Your task to perform on an android device: turn off smart reply in the gmail app Image 0: 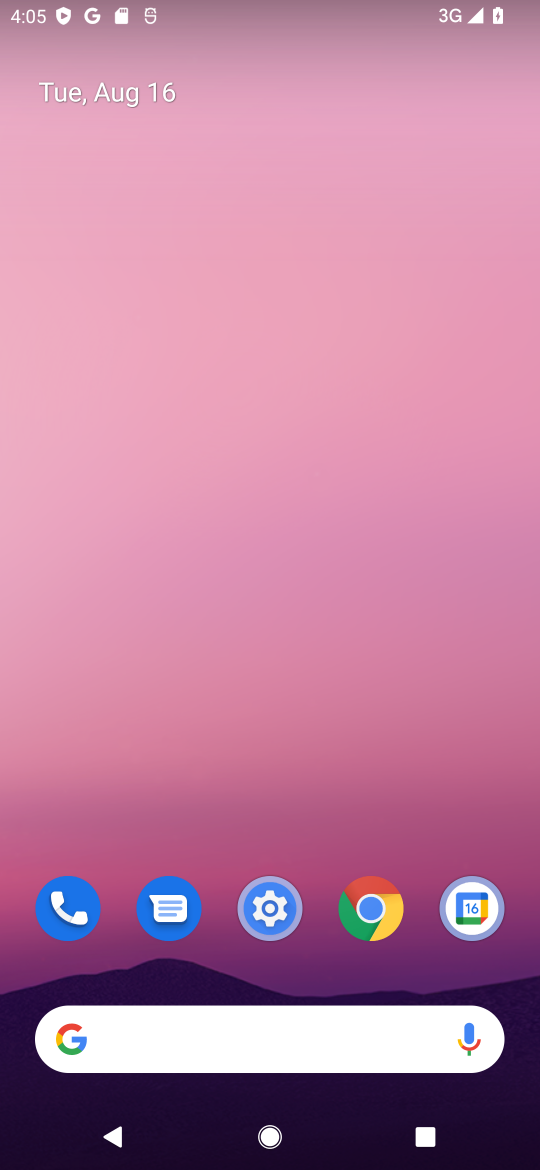
Step 0: drag from (322, 905) to (410, 168)
Your task to perform on an android device: turn off smart reply in the gmail app Image 1: 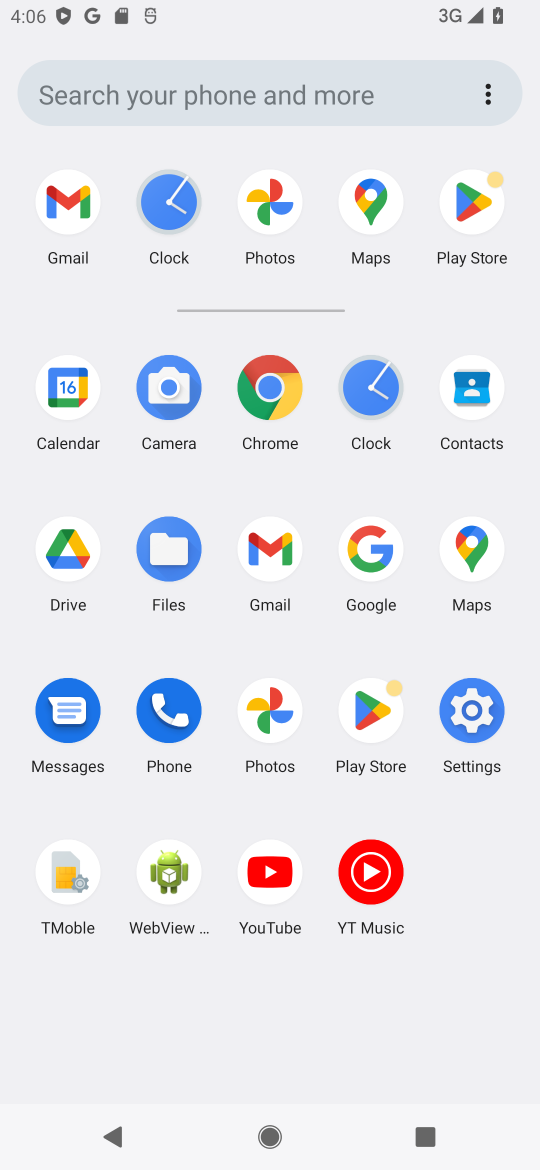
Step 1: click (68, 209)
Your task to perform on an android device: turn off smart reply in the gmail app Image 2: 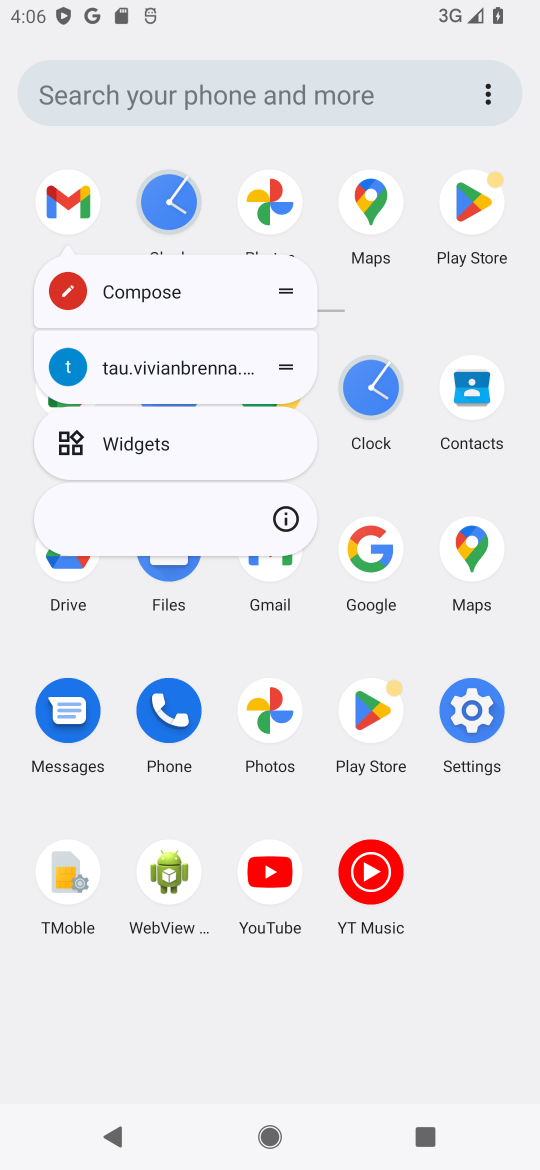
Step 2: click (63, 199)
Your task to perform on an android device: turn off smart reply in the gmail app Image 3: 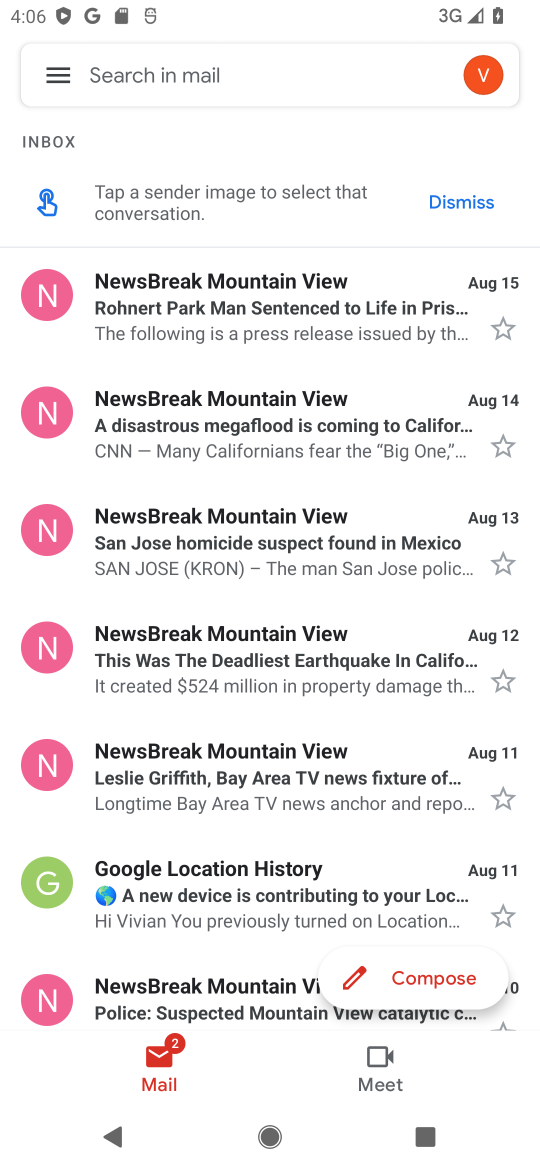
Step 3: click (62, 62)
Your task to perform on an android device: turn off smart reply in the gmail app Image 4: 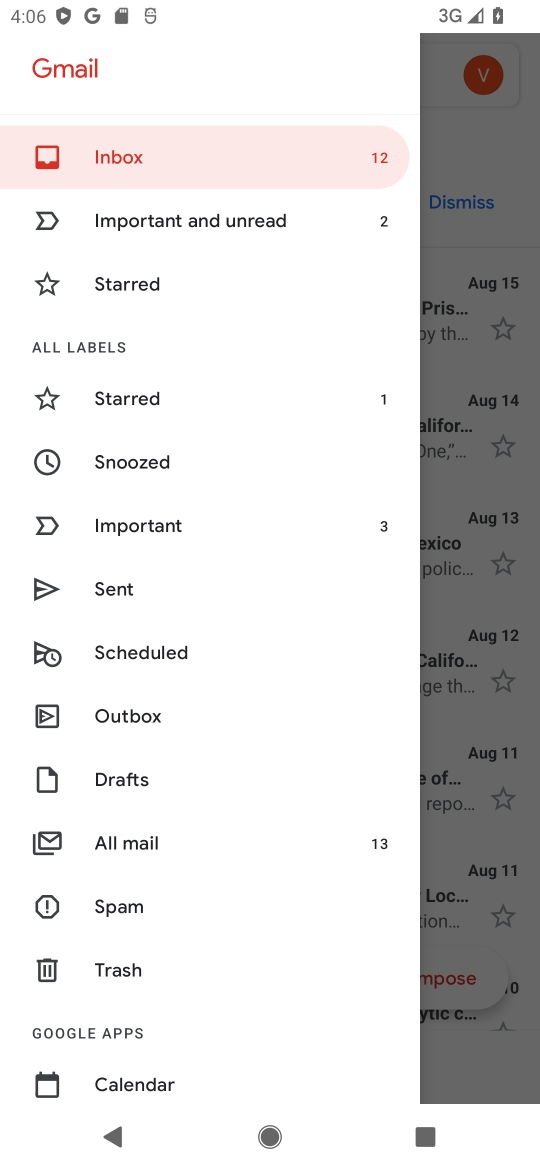
Step 4: drag from (158, 1013) to (307, 2)
Your task to perform on an android device: turn off smart reply in the gmail app Image 5: 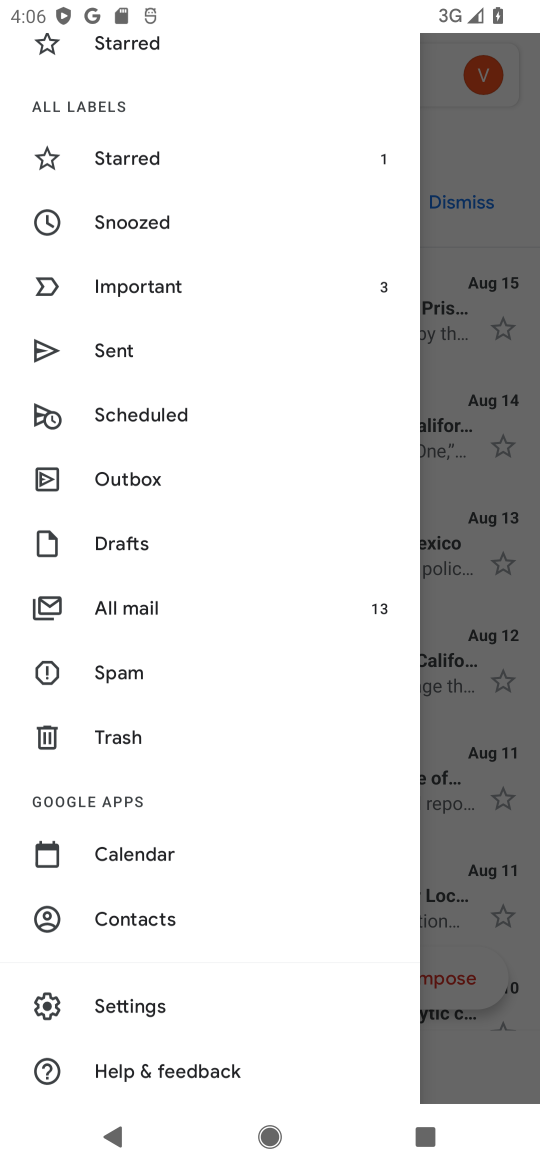
Step 5: click (120, 1004)
Your task to perform on an android device: turn off smart reply in the gmail app Image 6: 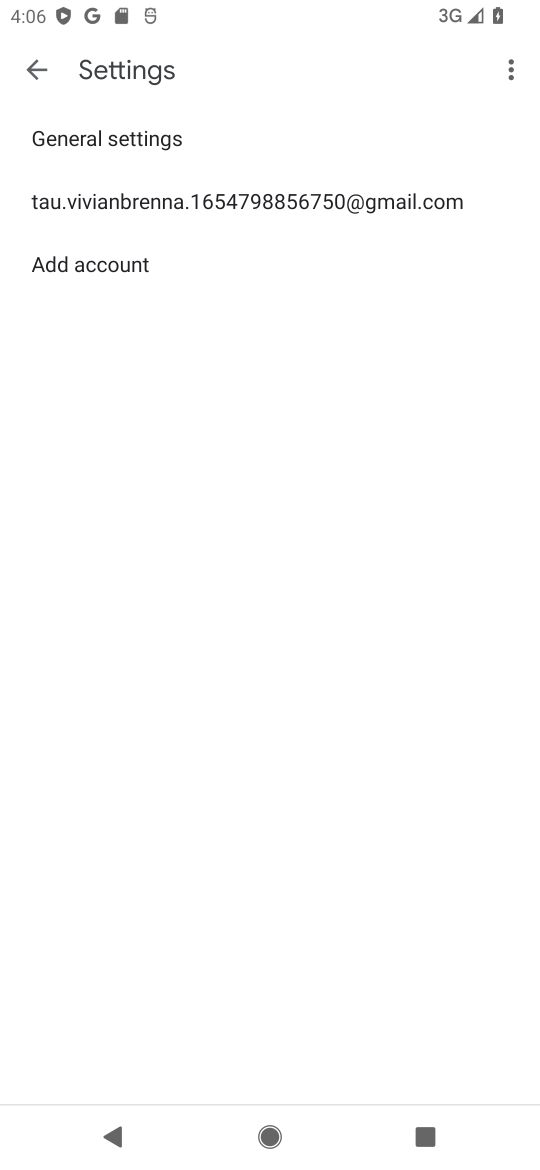
Step 6: click (238, 202)
Your task to perform on an android device: turn off smart reply in the gmail app Image 7: 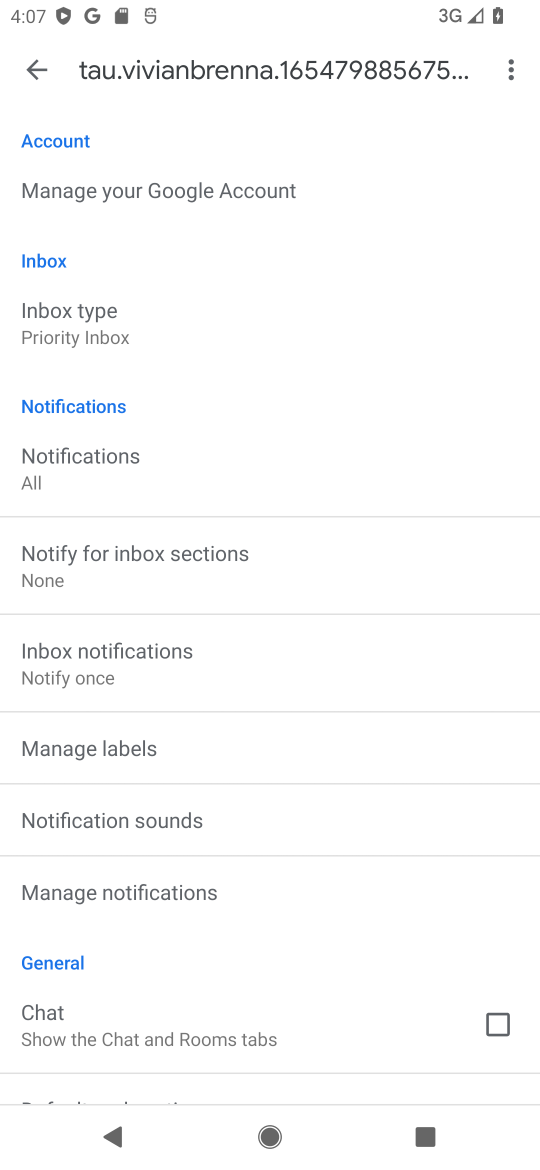
Step 7: task complete